Your task to perform on an android device: When is my next appointment? Image 0: 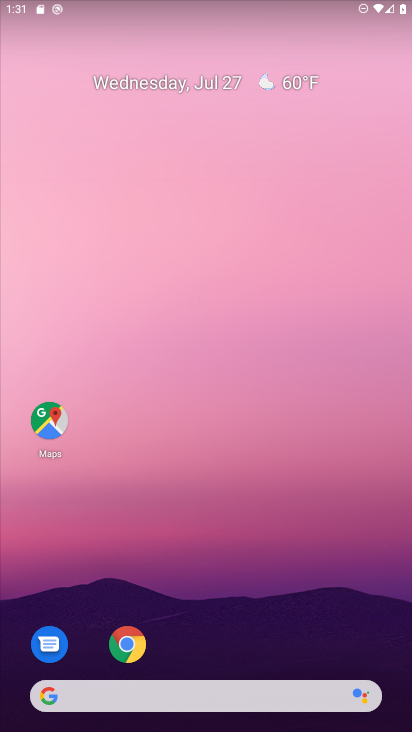
Step 0: drag from (168, 624) to (183, 119)
Your task to perform on an android device: When is my next appointment? Image 1: 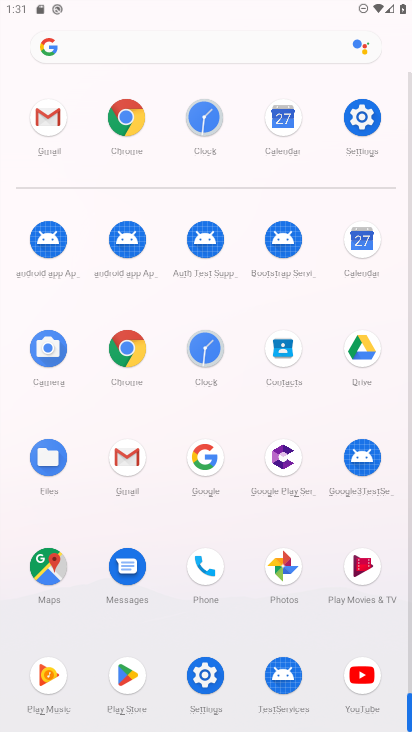
Step 1: click (361, 235)
Your task to perform on an android device: When is my next appointment? Image 2: 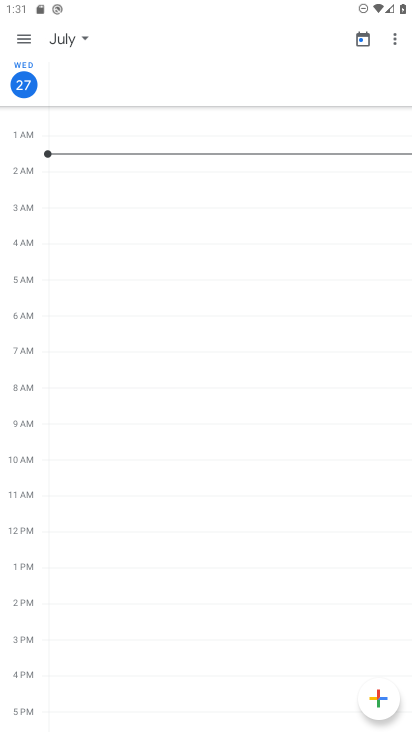
Step 2: click (70, 36)
Your task to perform on an android device: When is my next appointment? Image 3: 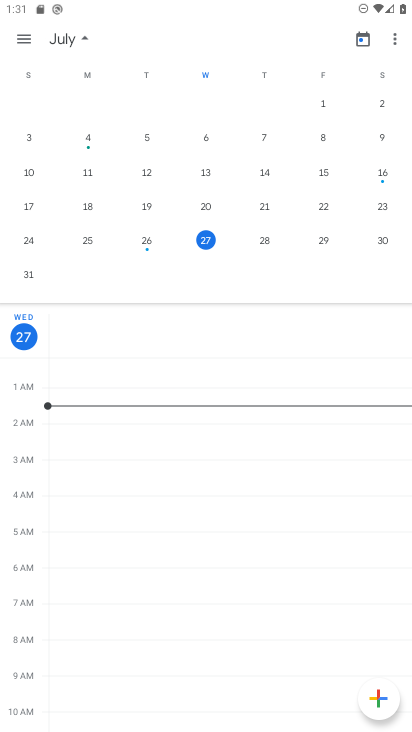
Step 3: click (362, 42)
Your task to perform on an android device: When is my next appointment? Image 4: 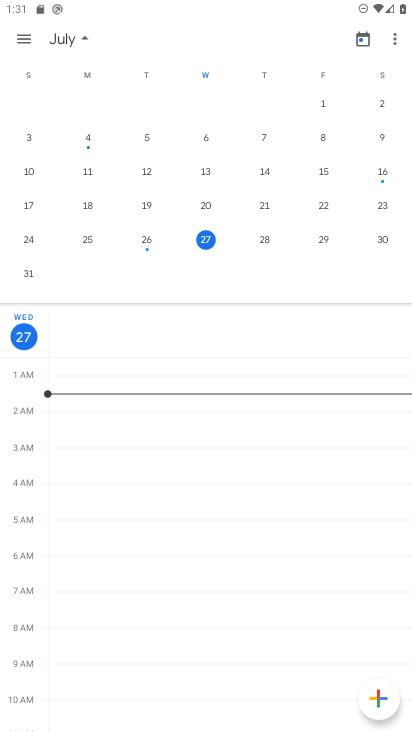
Step 4: click (367, 35)
Your task to perform on an android device: When is my next appointment? Image 5: 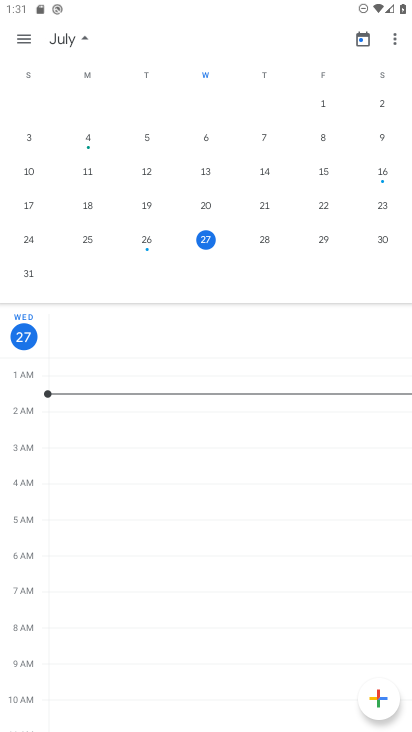
Step 5: click (209, 242)
Your task to perform on an android device: When is my next appointment? Image 6: 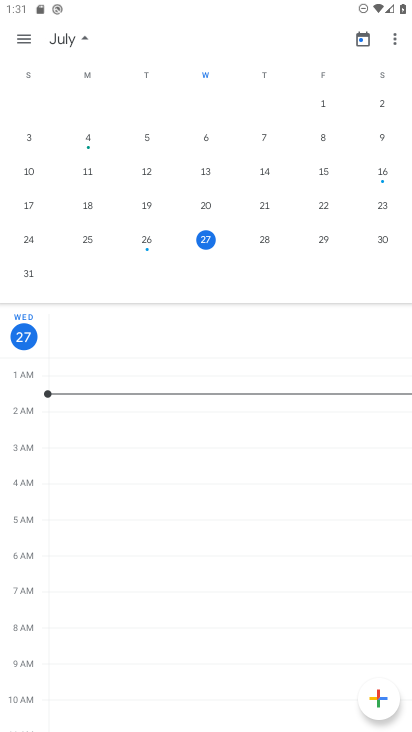
Step 6: task complete